Your task to perform on an android device: set an alarm Image 0: 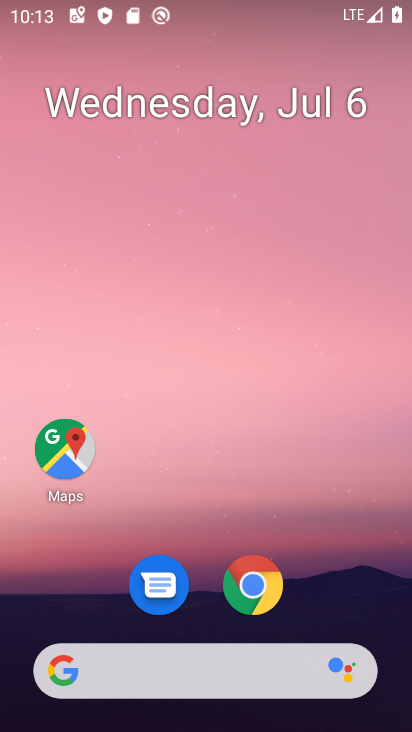
Step 0: drag from (202, 526) to (231, 5)
Your task to perform on an android device: set an alarm Image 1: 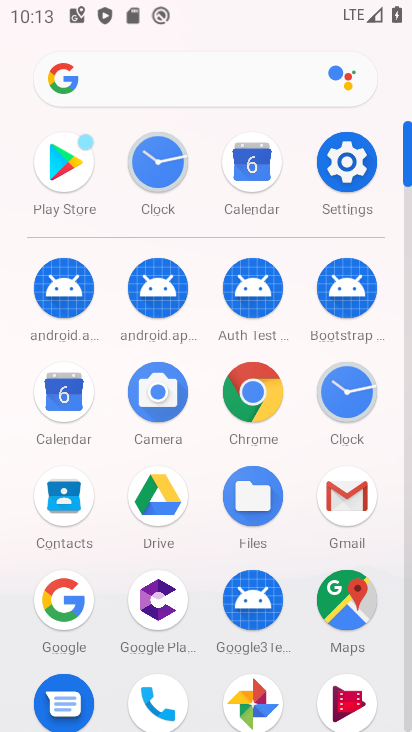
Step 1: click (154, 154)
Your task to perform on an android device: set an alarm Image 2: 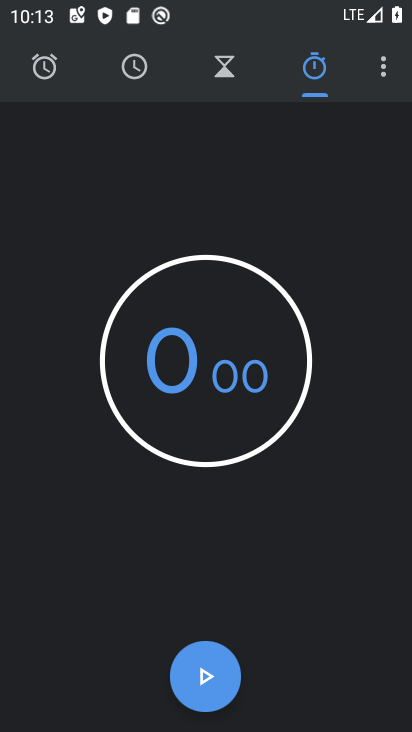
Step 2: click (39, 82)
Your task to perform on an android device: set an alarm Image 3: 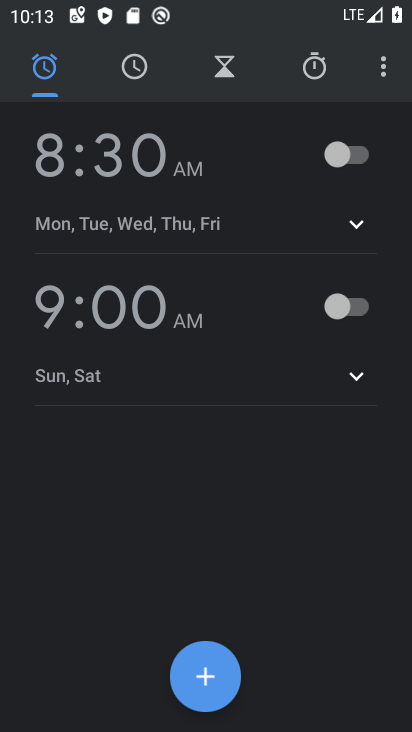
Step 3: click (200, 680)
Your task to perform on an android device: set an alarm Image 4: 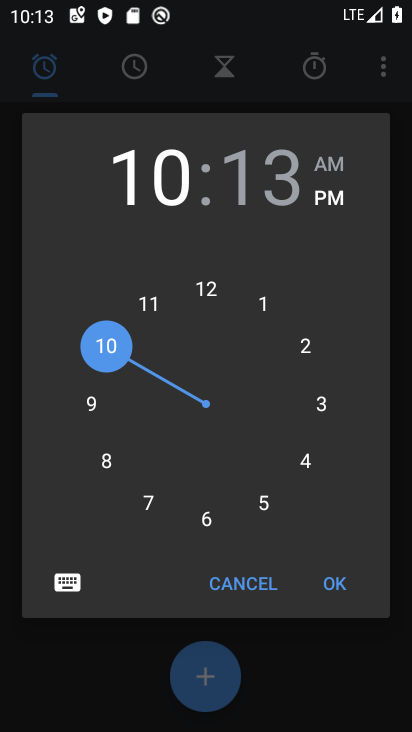
Step 4: click (270, 190)
Your task to perform on an android device: set an alarm Image 5: 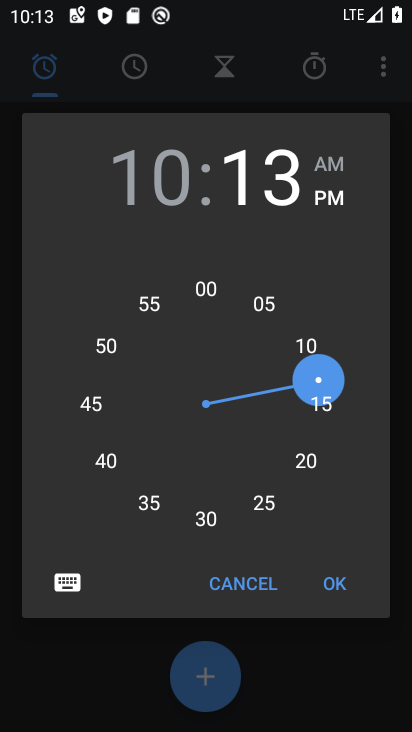
Step 5: click (209, 295)
Your task to perform on an android device: set an alarm Image 6: 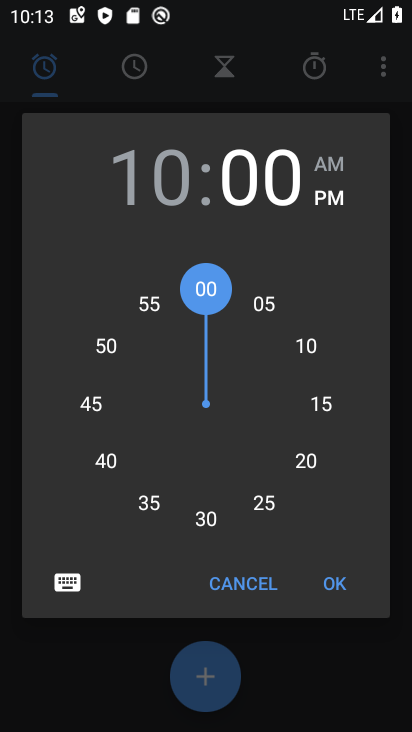
Step 6: click (330, 583)
Your task to perform on an android device: set an alarm Image 7: 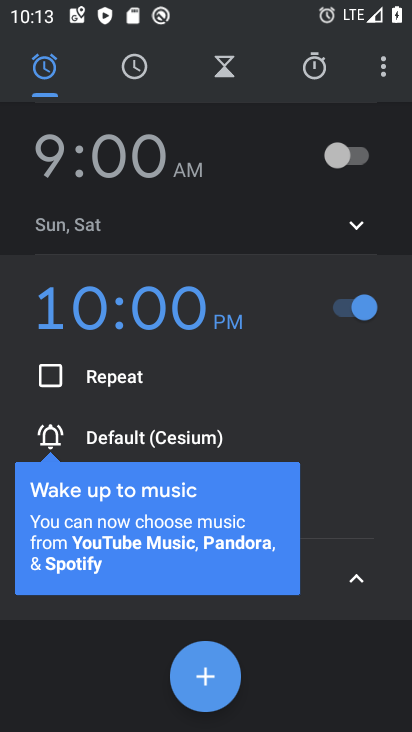
Step 7: task complete